Your task to perform on an android device: Open Chrome and go to settings Image 0: 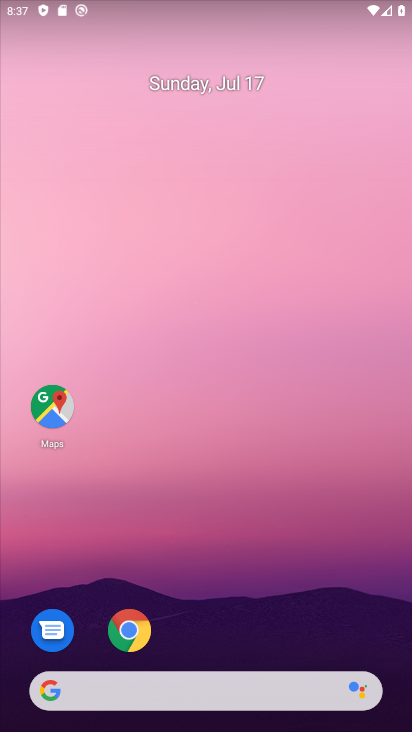
Step 0: click (145, 644)
Your task to perform on an android device: Open Chrome and go to settings Image 1: 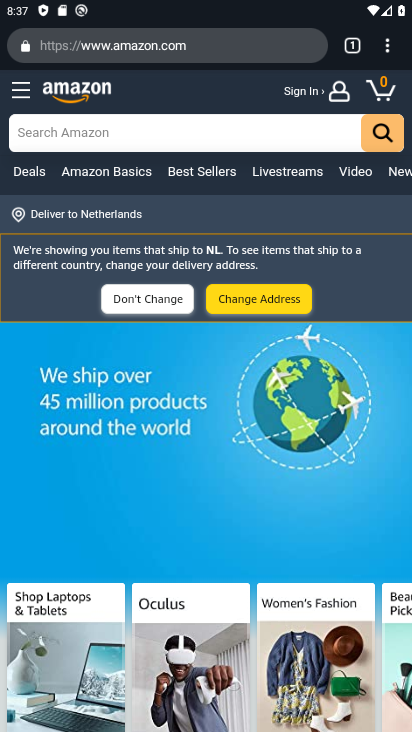
Step 1: click (388, 53)
Your task to perform on an android device: Open Chrome and go to settings Image 2: 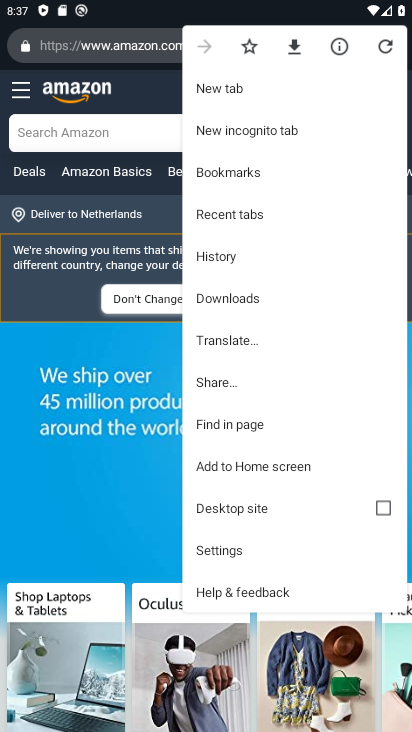
Step 2: click (247, 550)
Your task to perform on an android device: Open Chrome and go to settings Image 3: 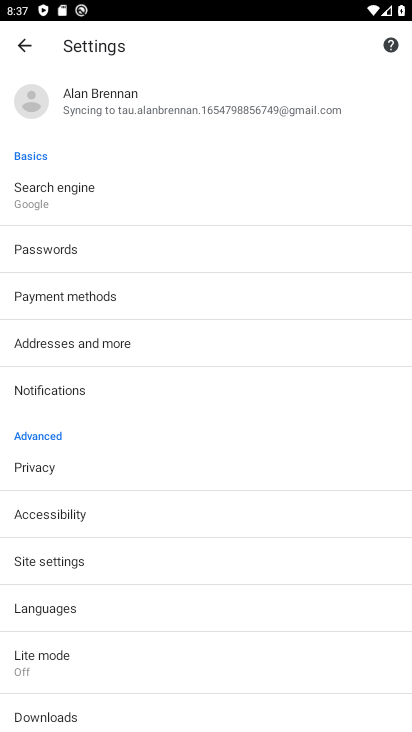
Step 3: task complete